Your task to perform on an android device: empty trash in google photos Image 0: 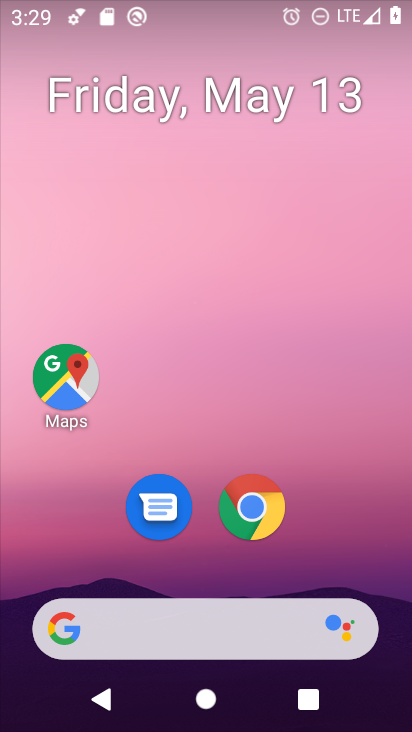
Step 0: drag from (324, 505) to (305, 218)
Your task to perform on an android device: empty trash in google photos Image 1: 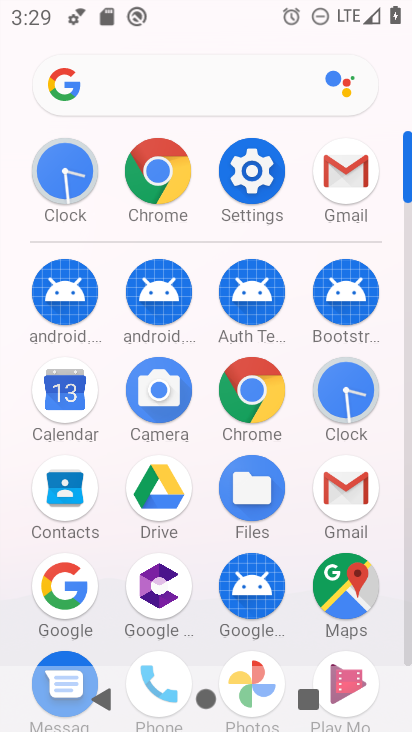
Step 1: drag from (299, 633) to (362, 197)
Your task to perform on an android device: empty trash in google photos Image 2: 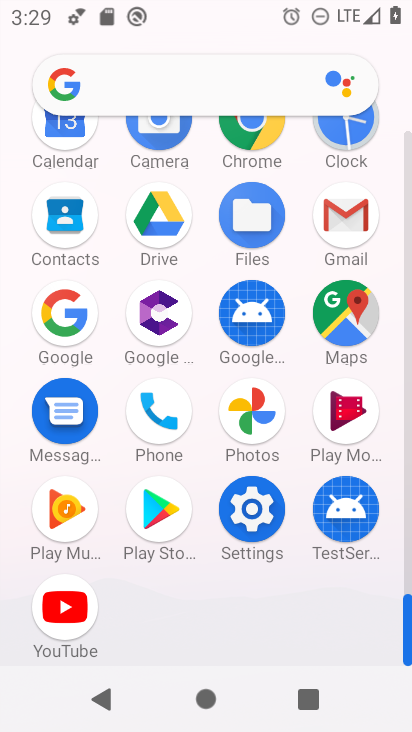
Step 2: click (237, 415)
Your task to perform on an android device: empty trash in google photos Image 3: 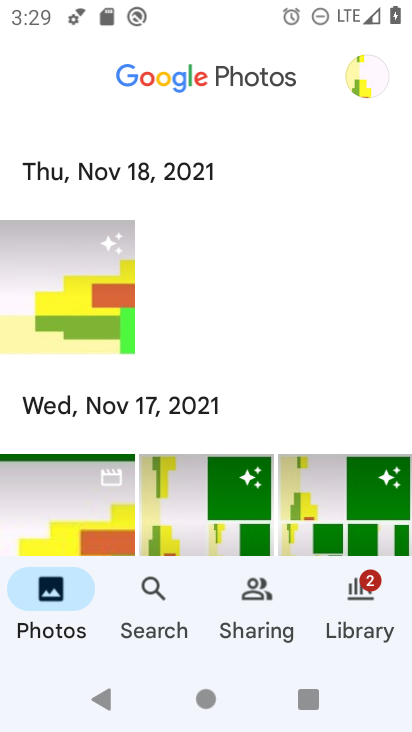
Step 3: click (347, 36)
Your task to perform on an android device: empty trash in google photos Image 4: 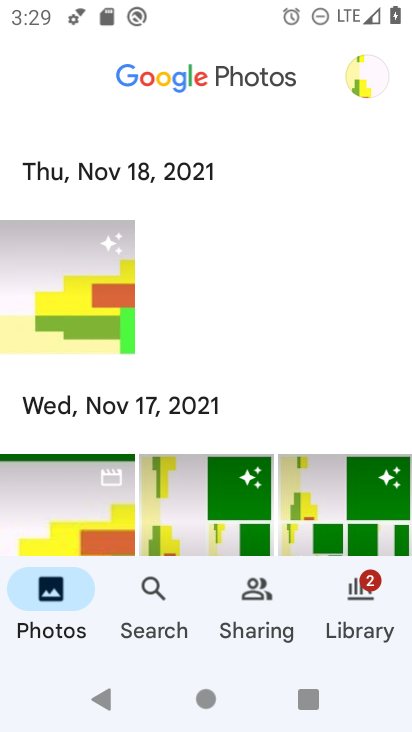
Step 4: click (353, 56)
Your task to perform on an android device: empty trash in google photos Image 5: 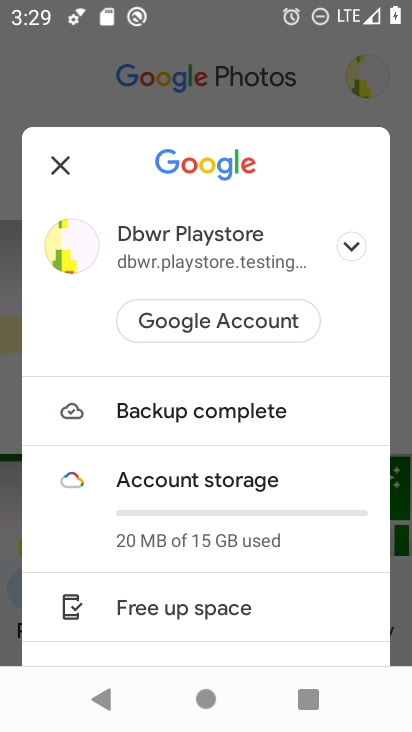
Step 5: drag from (281, 568) to (290, 290)
Your task to perform on an android device: empty trash in google photos Image 6: 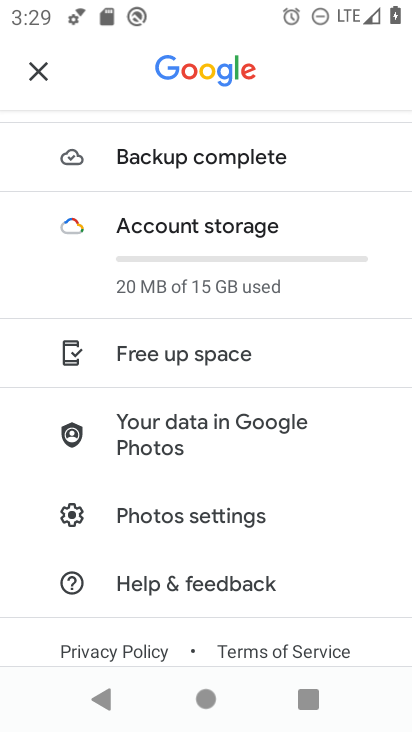
Step 6: drag from (232, 547) to (279, 316)
Your task to perform on an android device: empty trash in google photos Image 7: 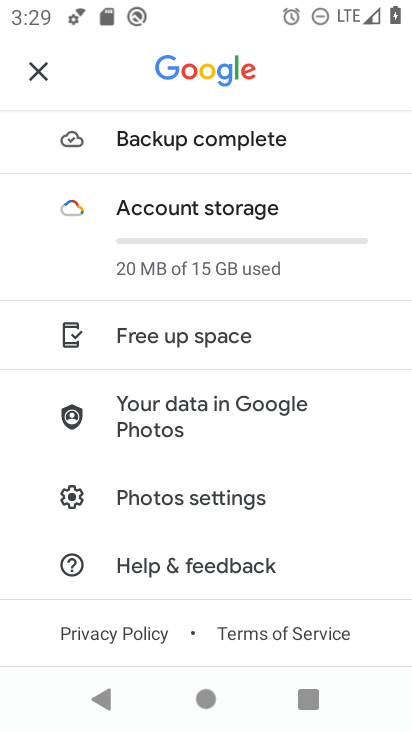
Step 7: click (221, 476)
Your task to perform on an android device: empty trash in google photos Image 8: 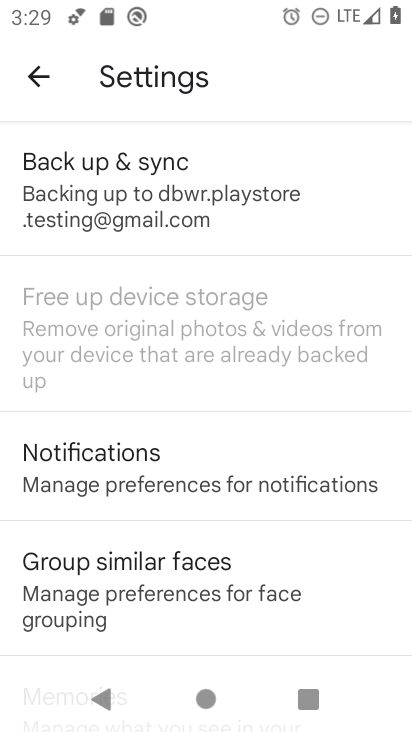
Step 8: drag from (289, 529) to (299, 219)
Your task to perform on an android device: empty trash in google photos Image 9: 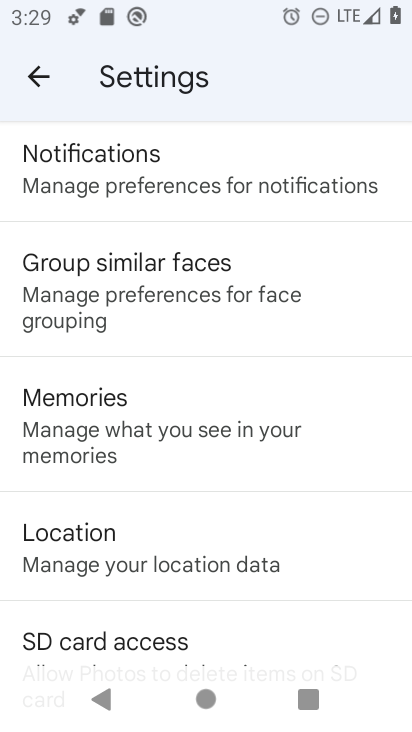
Step 9: drag from (237, 497) to (222, 427)
Your task to perform on an android device: empty trash in google photos Image 10: 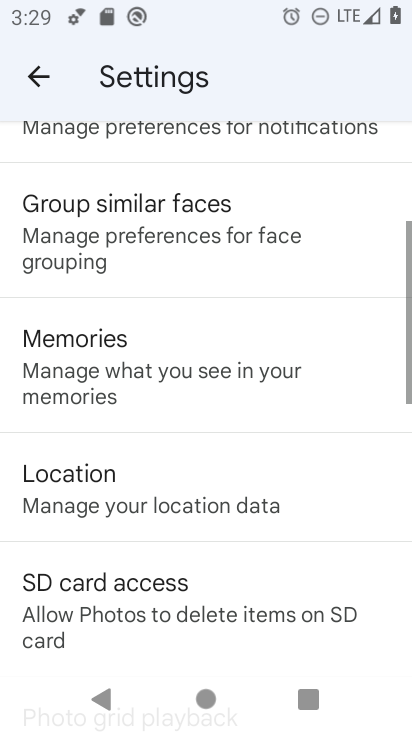
Step 10: drag from (210, 582) to (351, 40)
Your task to perform on an android device: empty trash in google photos Image 11: 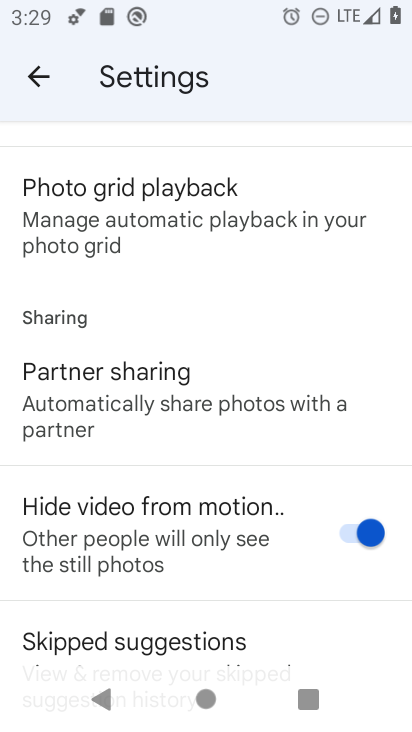
Step 11: drag from (178, 580) to (337, 3)
Your task to perform on an android device: empty trash in google photos Image 12: 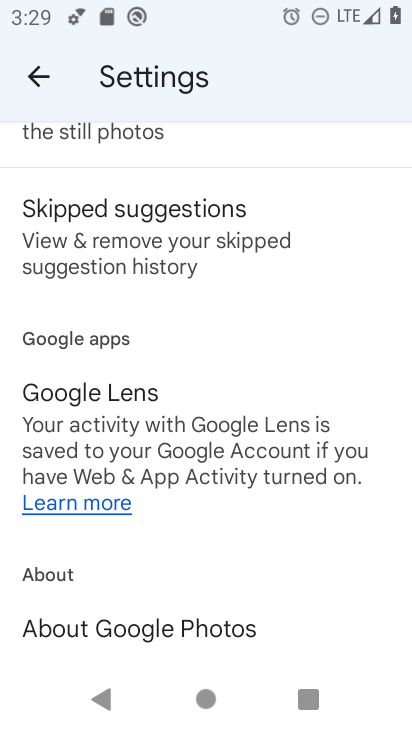
Step 12: drag from (219, 586) to (277, 199)
Your task to perform on an android device: empty trash in google photos Image 13: 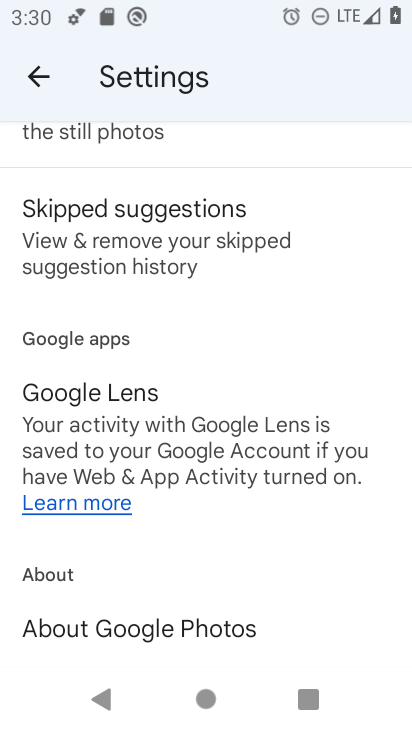
Step 13: click (112, 621)
Your task to perform on an android device: empty trash in google photos Image 14: 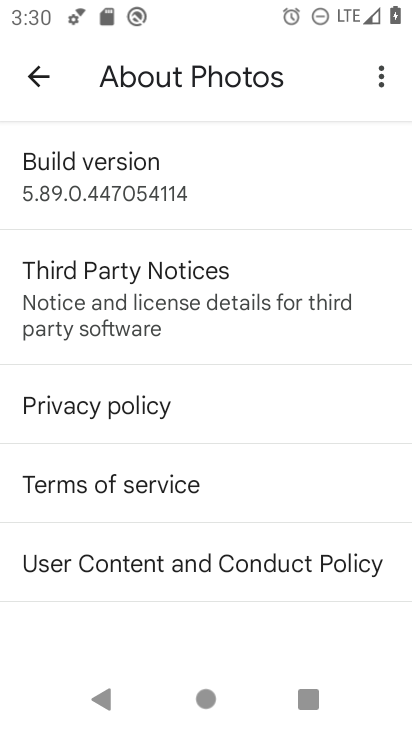
Step 14: task complete